Your task to perform on an android device: turn on airplane mode Image 0: 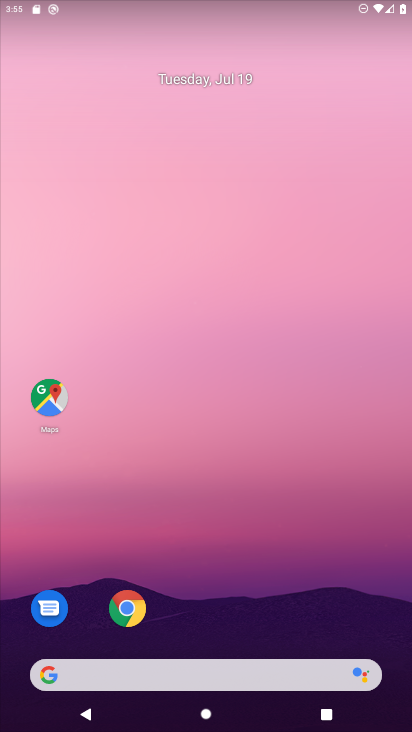
Step 0: drag from (243, 599) to (246, 110)
Your task to perform on an android device: turn on airplane mode Image 1: 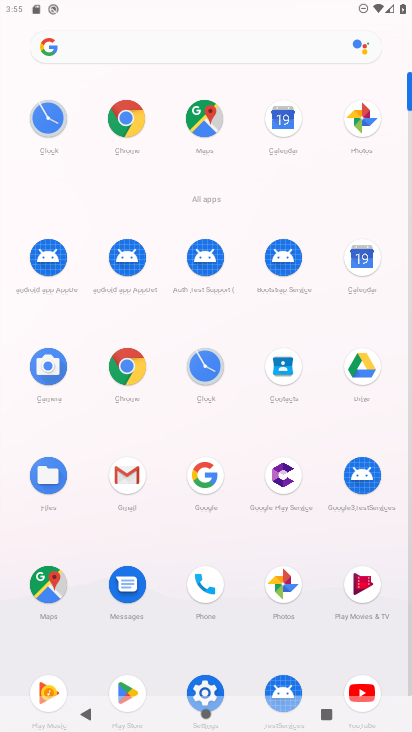
Step 1: click (215, 689)
Your task to perform on an android device: turn on airplane mode Image 2: 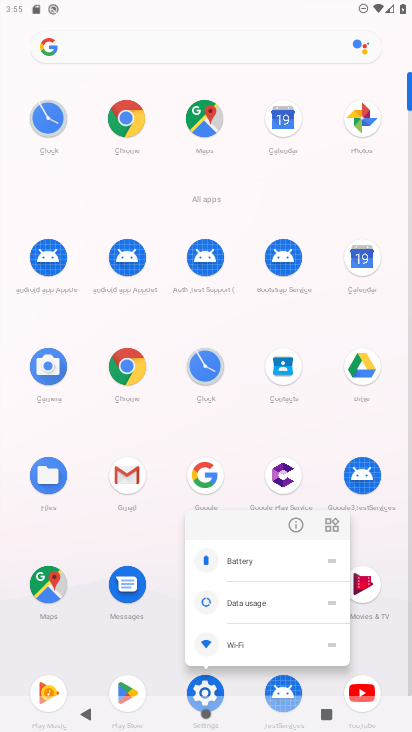
Step 2: click (207, 685)
Your task to perform on an android device: turn on airplane mode Image 3: 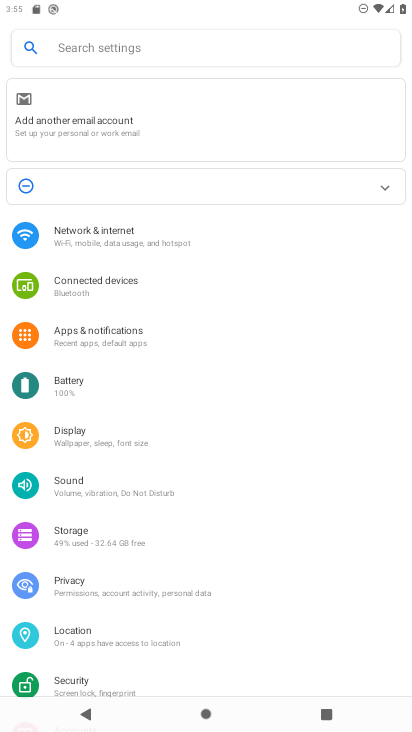
Step 3: click (86, 240)
Your task to perform on an android device: turn on airplane mode Image 4: 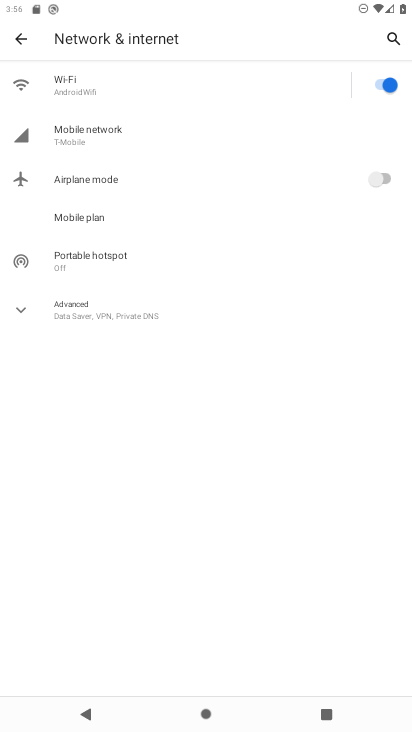
Step 4: click (373, 186)
Your task to perform on an android device: turn on airplane mode Image 5: 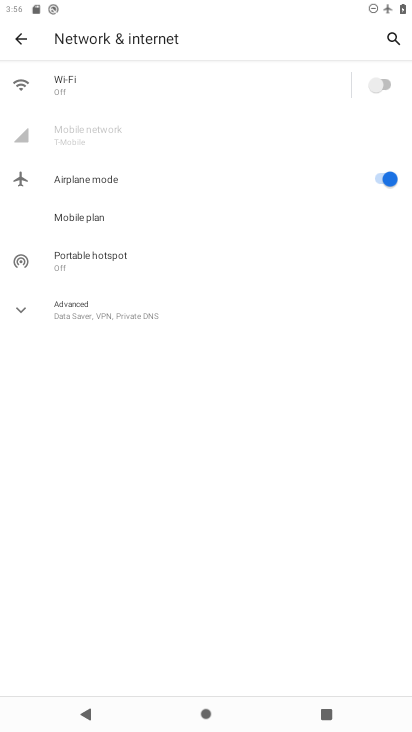
Step 5: task complete